Your task to perform on an android device: Open Google Chrome and open the bookmarks view Image 0: 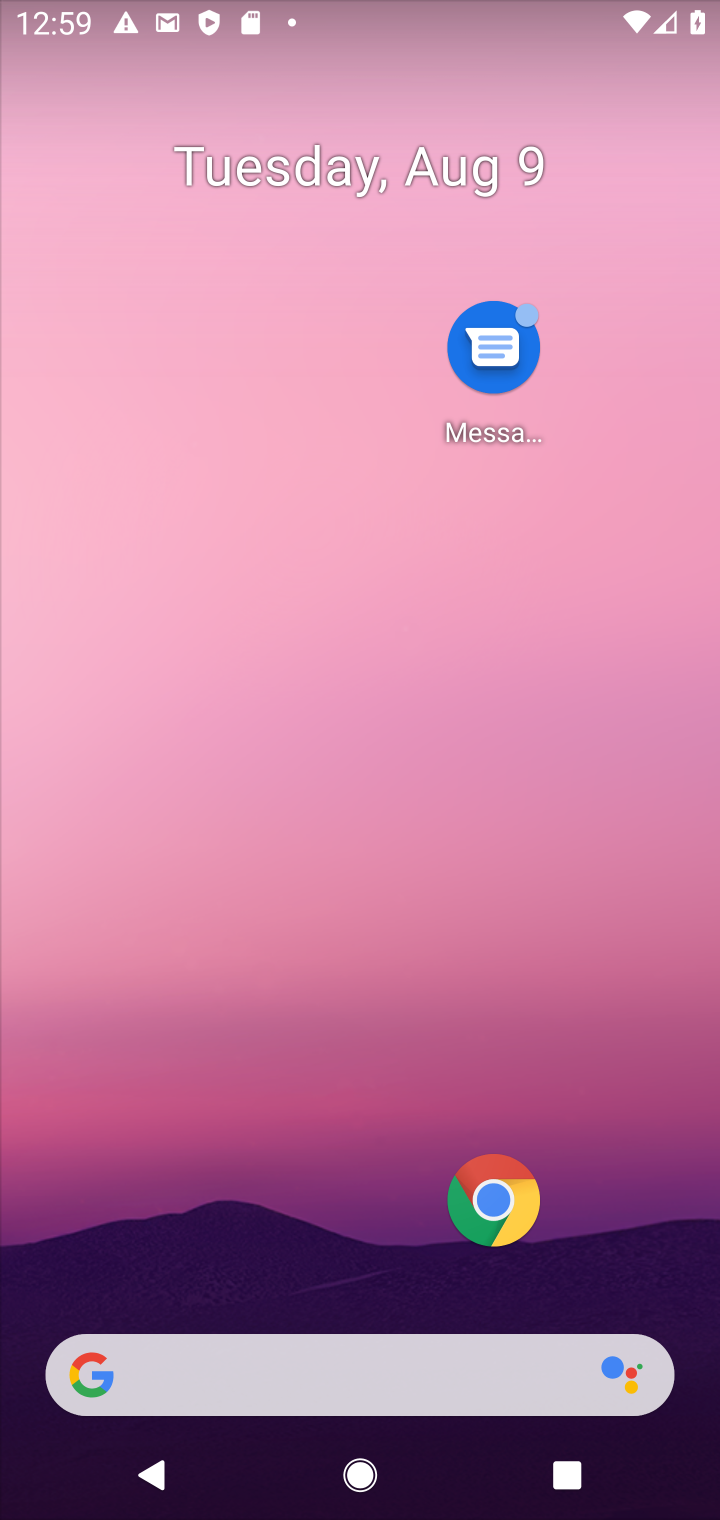
Step 0: click (495, 1194)
Your task to perform on an android device: Open Google Chrome and open the bookmarks view Image 1: 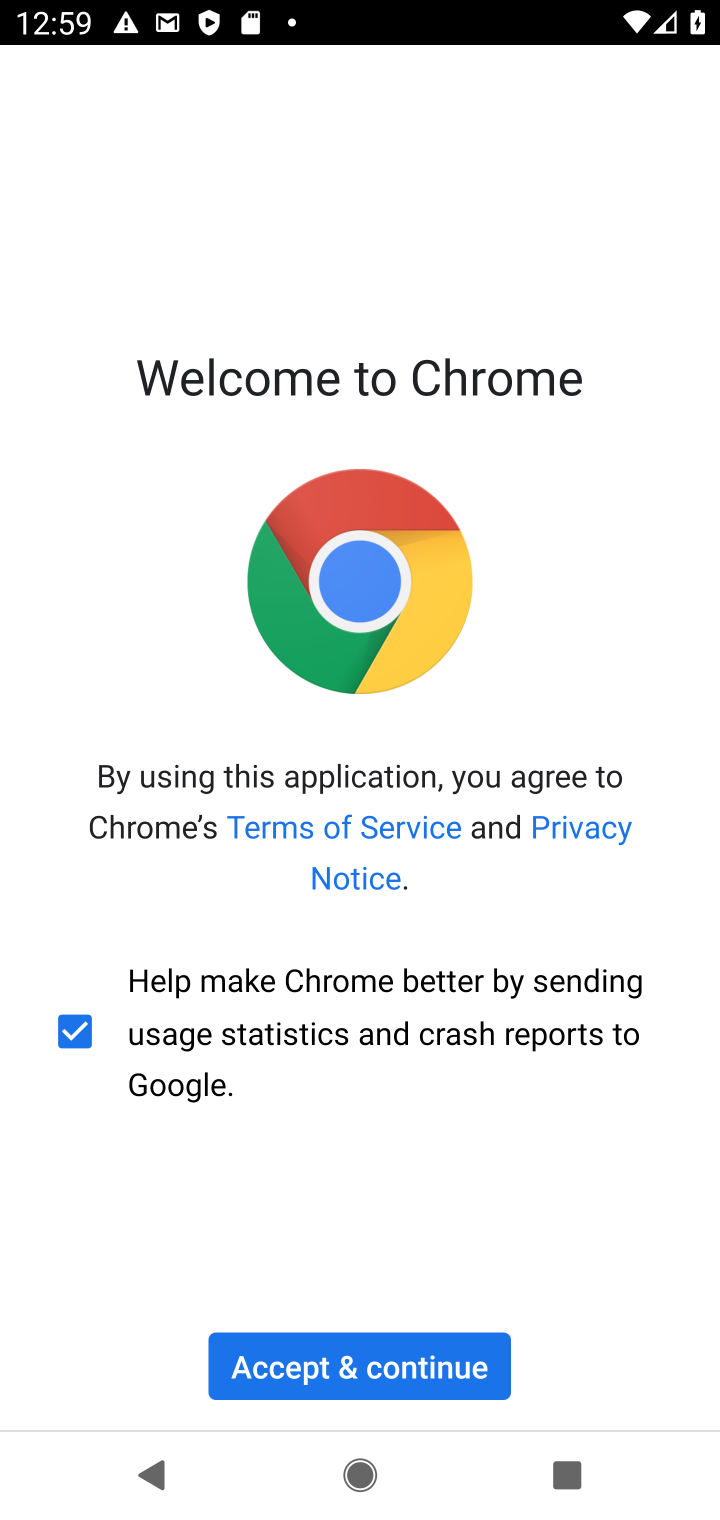
Step 1: click (400, 1342)
Your task to perform on an android device: Open Google Chrome and open the bookmarks view Image 2: 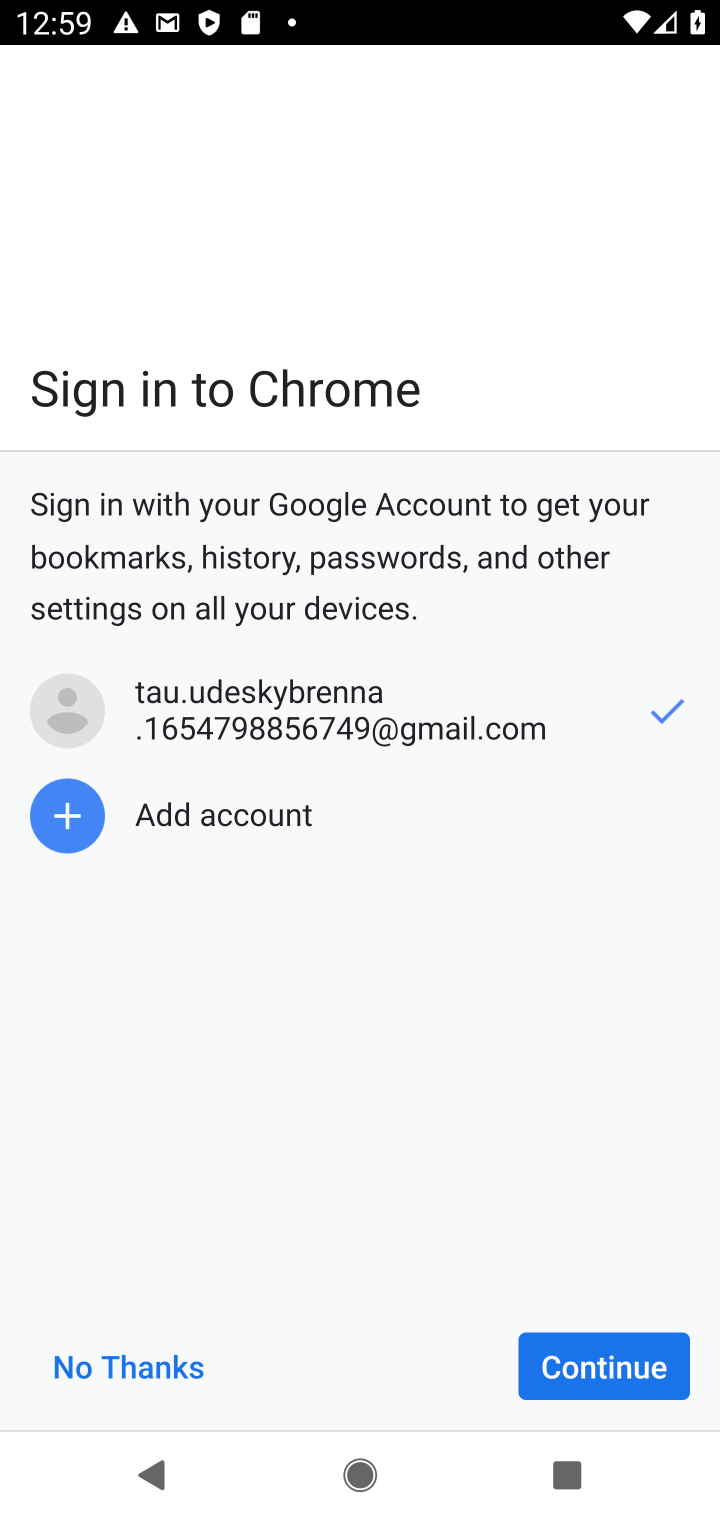
Step 2: click (641, 1395)
Your task to perform on an android device: Open Google Chrome and open the bookmarks view Image 3: 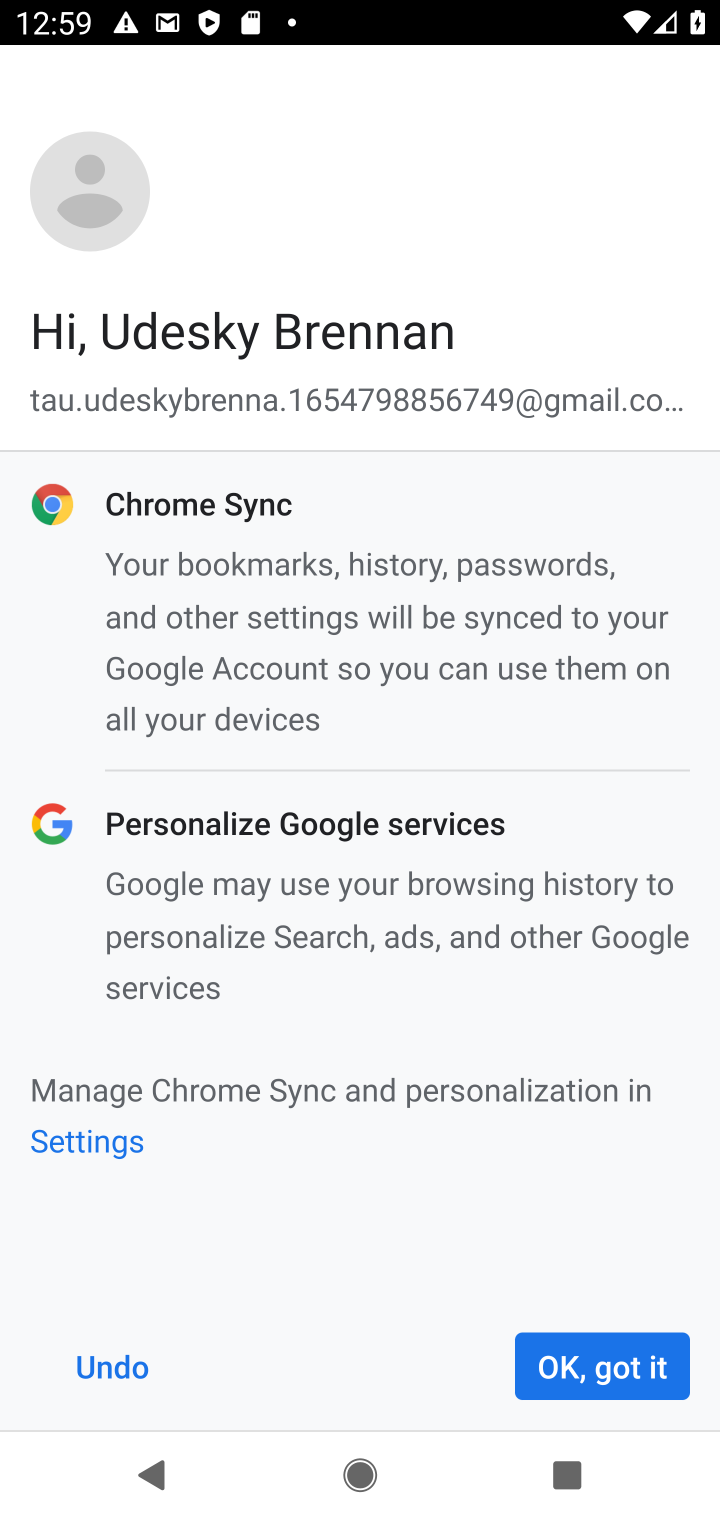
Step 3: click (583, 1353)
Your task to perform on an android device: Open Google Chrome and open the bookmarks view Image 4: 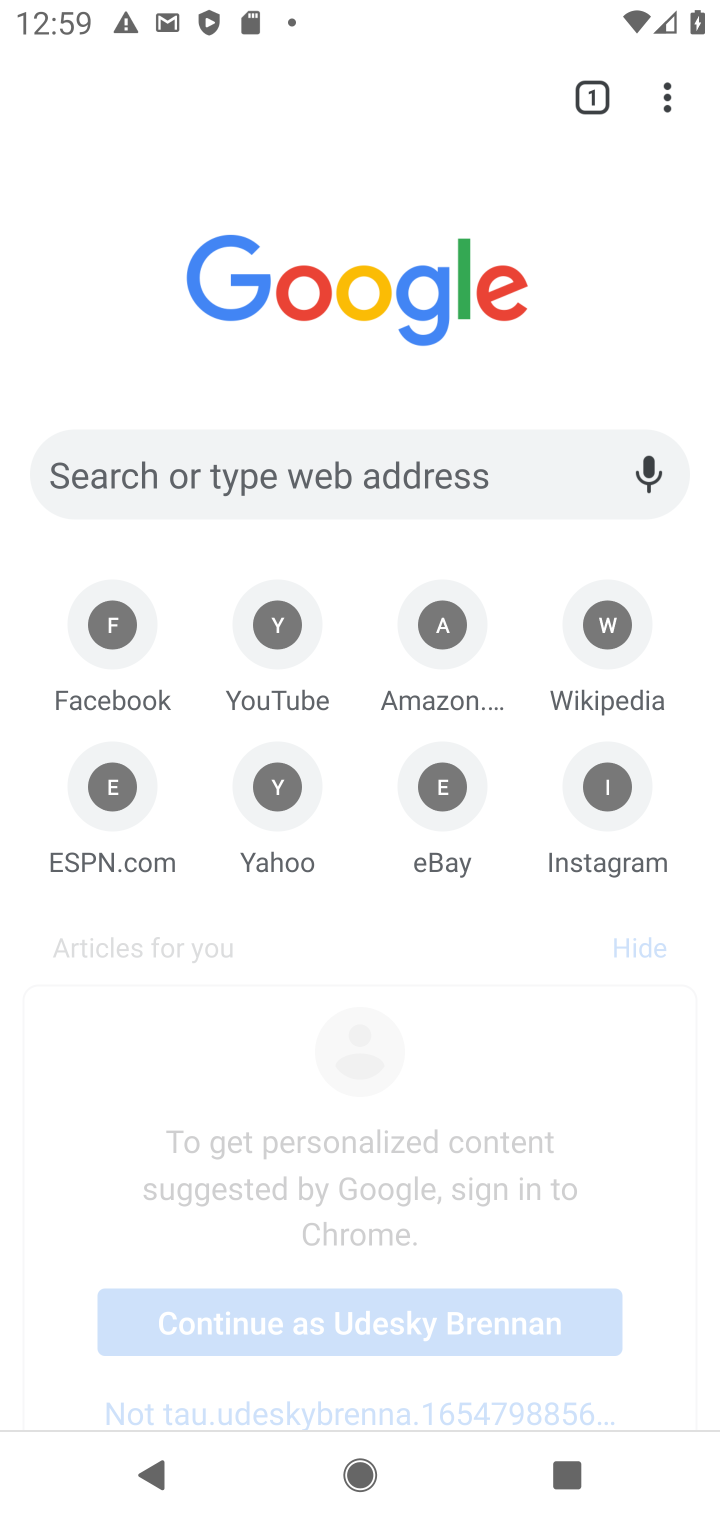
Step 4: task complete